Your task to perform on an android device: open wifi settings Image 0: 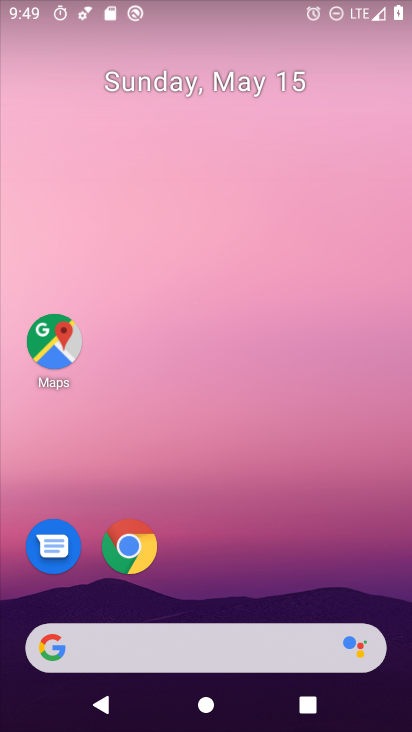
Step 0: drag from (290, 569) to (235, 19)
Your task to perform on an android device: open wifi settings Image 1: 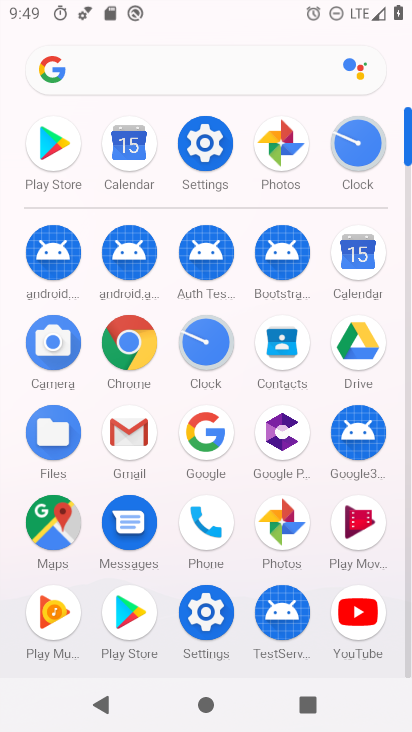
Step 1: click (200, 133)
Your task to perform on an android device: open wifi settings Image 2: 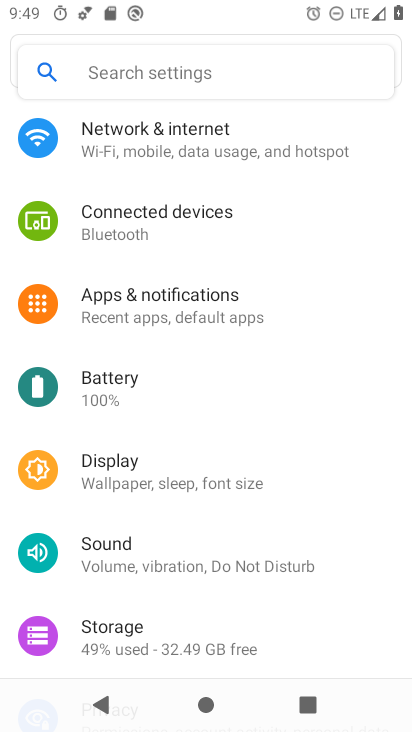
Step 2: click (214, 131)
Your task to perform on an android device: open wifi settings Image 3: 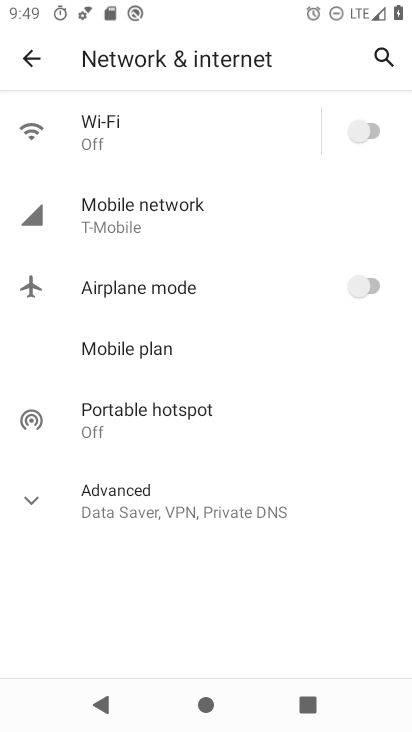
Step 3: click (214, 131)
Your task to perform on an android device: open wifi settings Image 4: 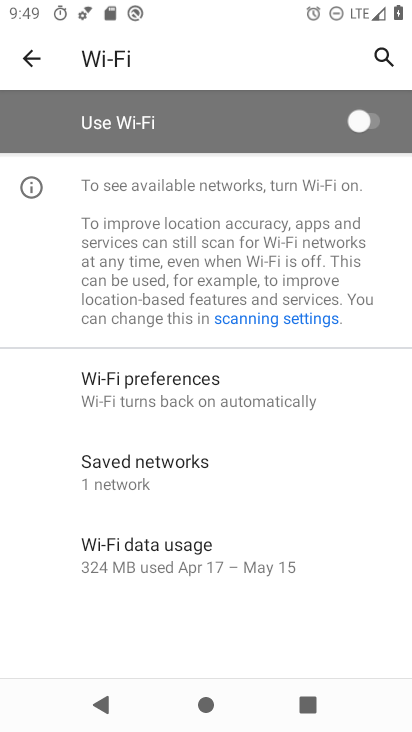
Step 4: task complete